Your task to perform on an android device: Open Google Maps Image 0: 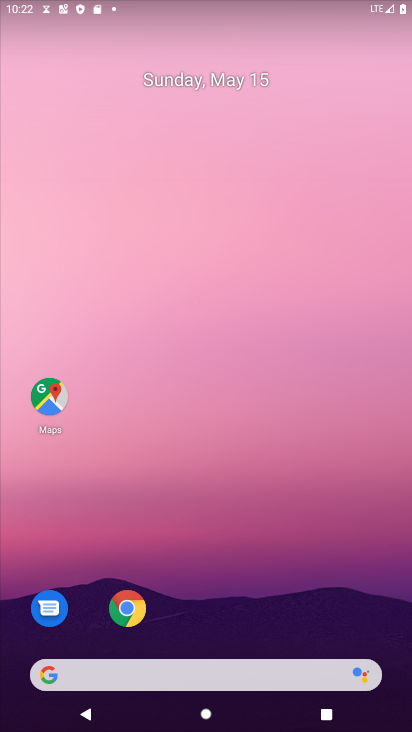
Step 0: drag from (258, 509) to (323, 3)
Your task to perform on an android device: Open Google Maps Image 1: 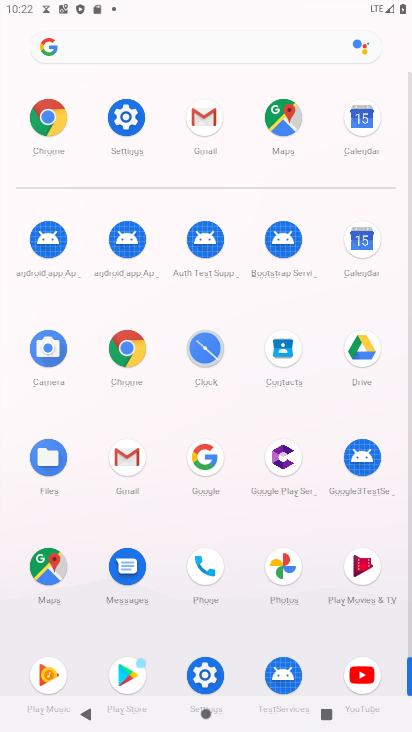
Step 1: click (273, 127)
Your task to perform on an android device: Open Google Maps Image 2: 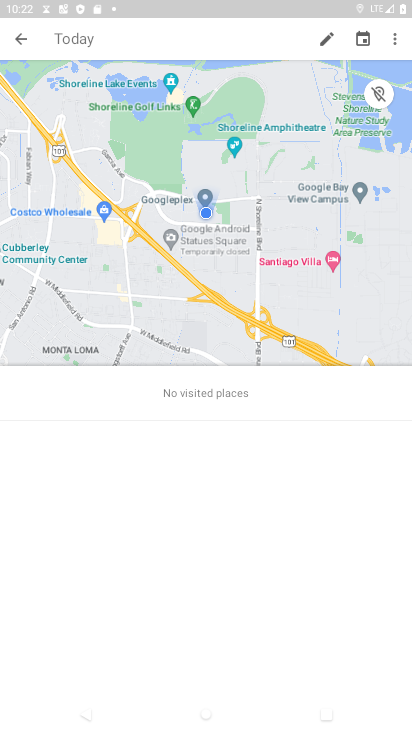
Step 2: task complete